Your task to perform on an android device: Go to Maps Image 0: 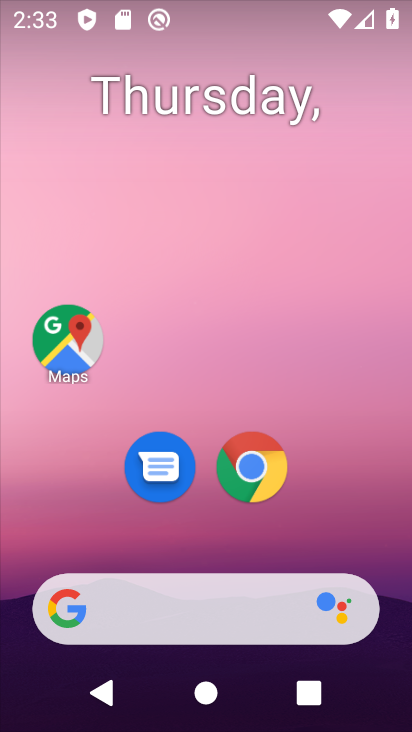
Step 0: click (75, 331)
Your task to perform on an android device: Go to Maps Image 1: 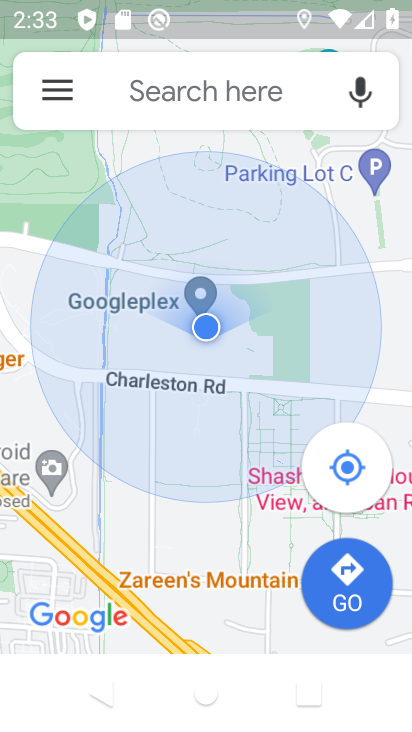
Step 1: task complete